Your task to perform on an android device: snooze an email in the gmail app Image 0: 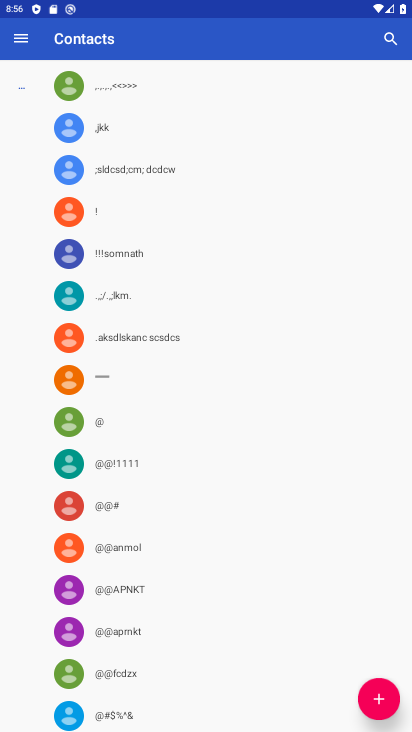
Step 0: press home button
Your task to perform on an android device: snooze an email in the gmail app Image 1: 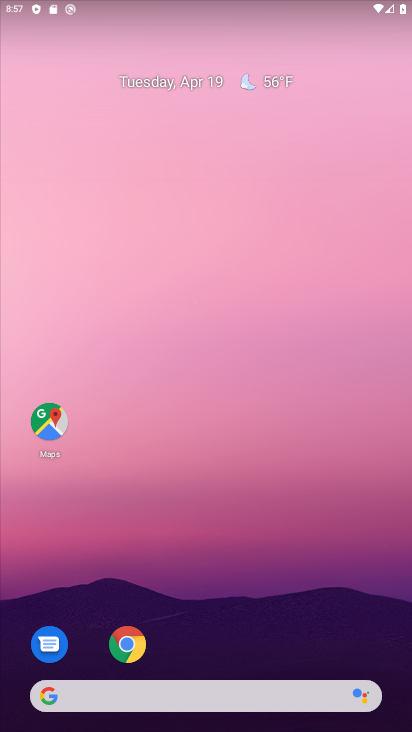
Step 1: drag from (224, 654) to (257, 191)
Your task to perform on an android device: snooze an email in the gmail app Image 2: 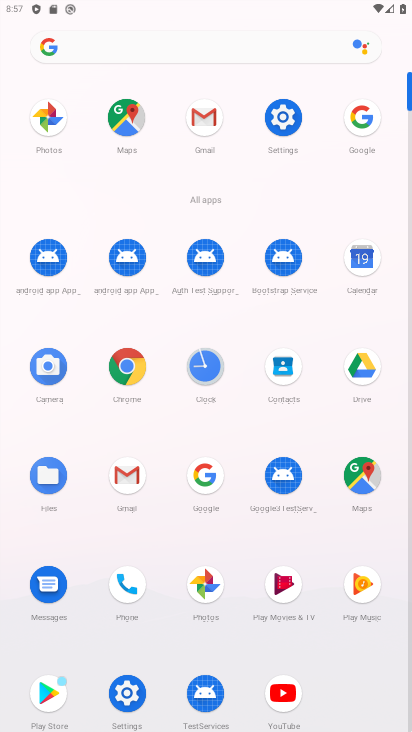
Step 2: click (198, 120)
Your task to perform on an android device: snooze an email in the gmail app Image 3: 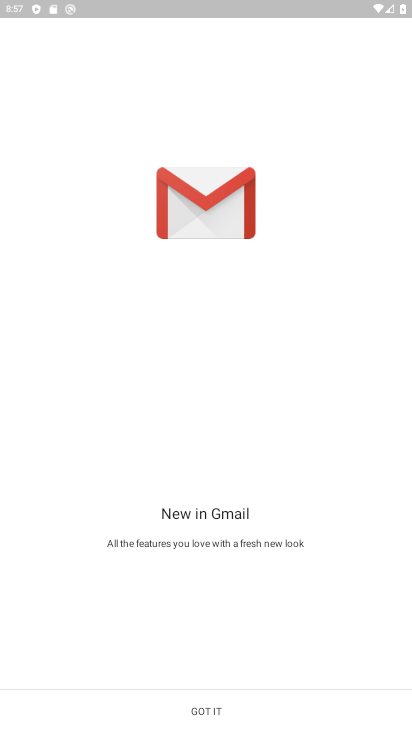
Step 3: click (240, 710)
Your task to perform on an android device: snooze an email in the gmail app Image 4: 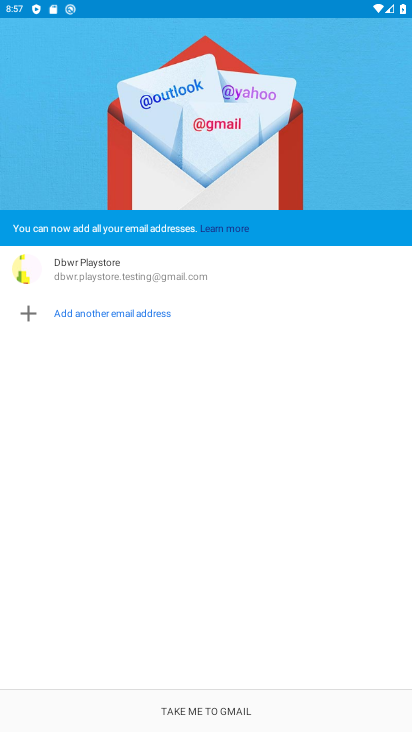
Step 4: click (234, 715)
Your task to perform on an android device: snooze an email in the gmail app Image 5: 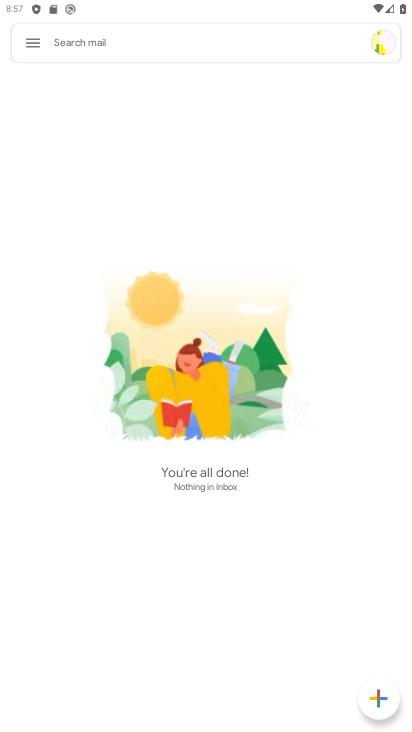
Step 5: click (33, 42)
Your task to perform on an android device: snooze an email in the gmail app Image 6: 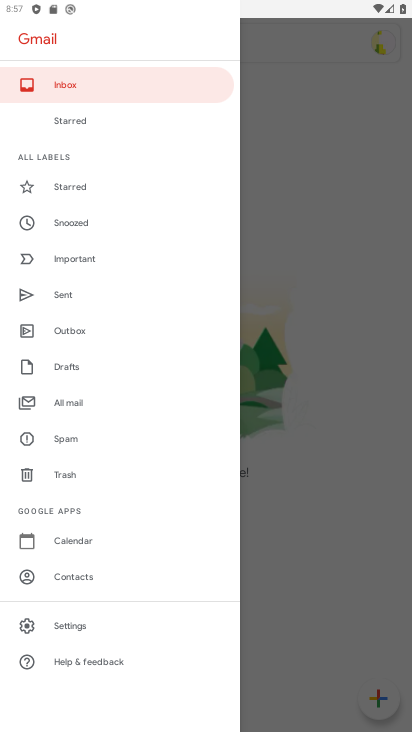
Step 6: click (73, 390)
Your task to perform on an android device: snooze an email in the gmail app Image 7: 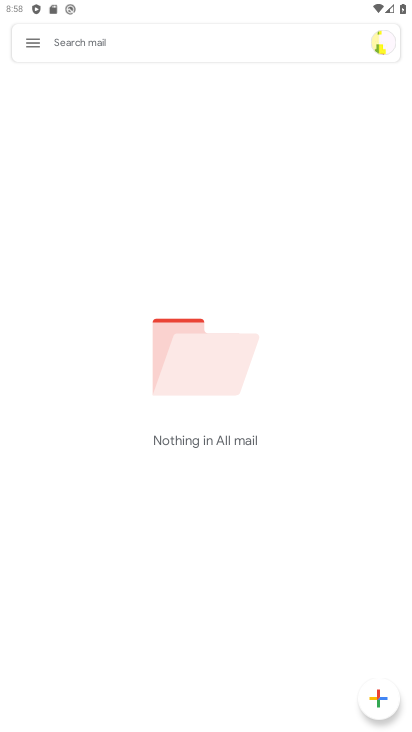
Step 7: task complete